Your task to perform on an android device: Go to CNN.com Image 0: 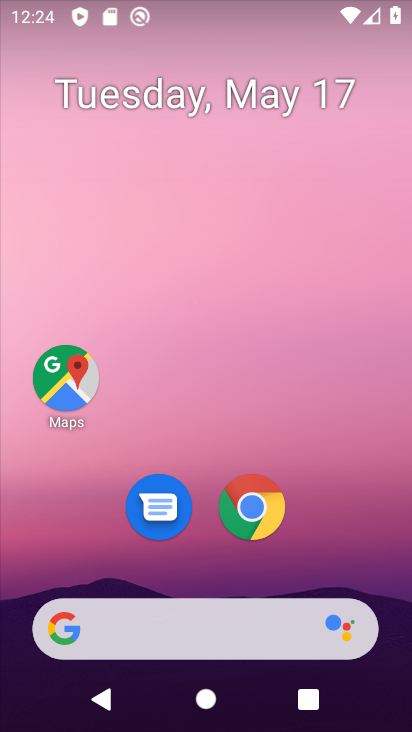
Step 0: click (248, 515)
Your task to perform on an android device: Go to CNN.com Image 1: 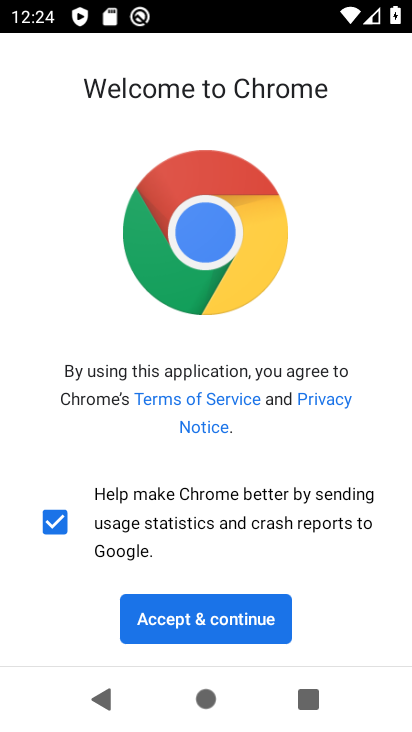
Step 1: click (150, 625)
Your task to perform on an android device: Go to CNN.com Image 2: 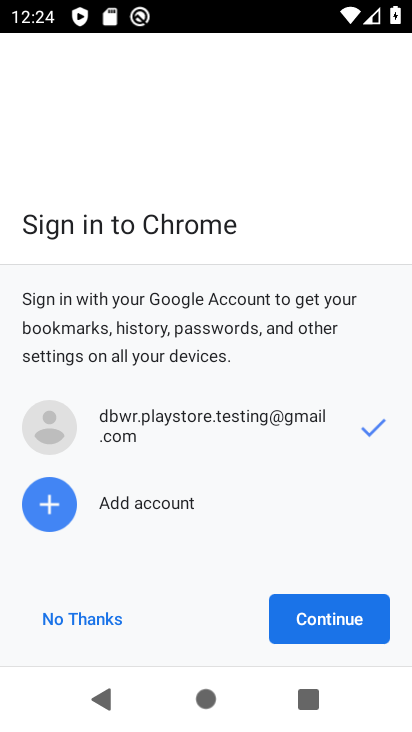
Step 2: click (286, 620)
Your task to perform on an android device: Go to CNN.com Image 3: 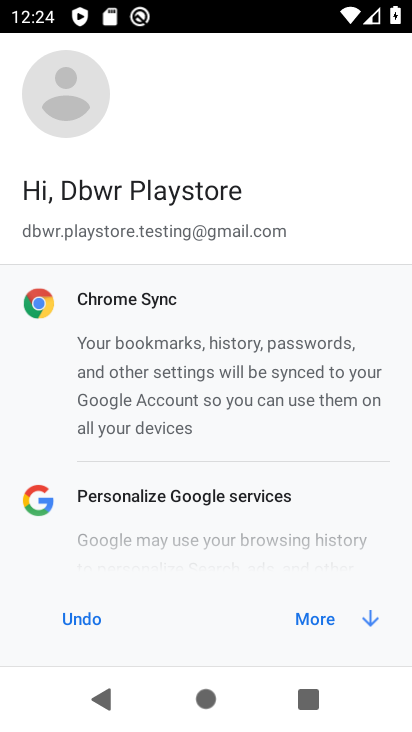
Step 3: click (315, 612)
Your task to perform on an android device: Go to CNN.com Image 4: 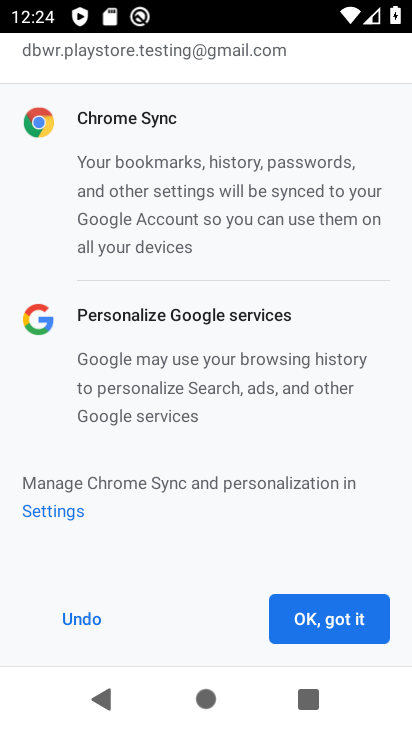
Step 4: click (315, 612)
Your task to perform on an android device: Go to CNN.com Image 5: 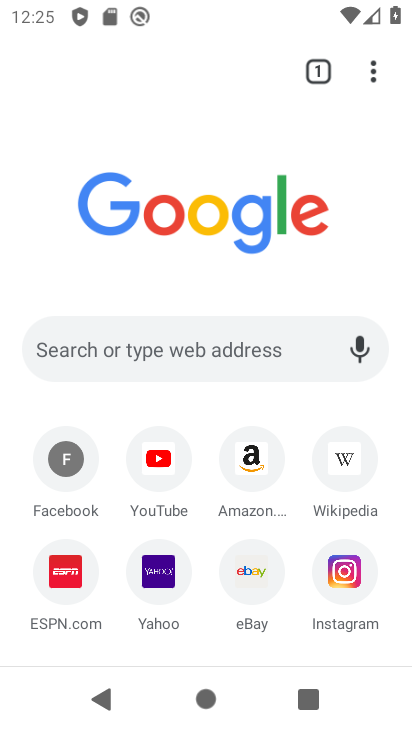
Step 5: click (241, 337)
Your task to perform on an android device: Go to CNN.com Image 6: 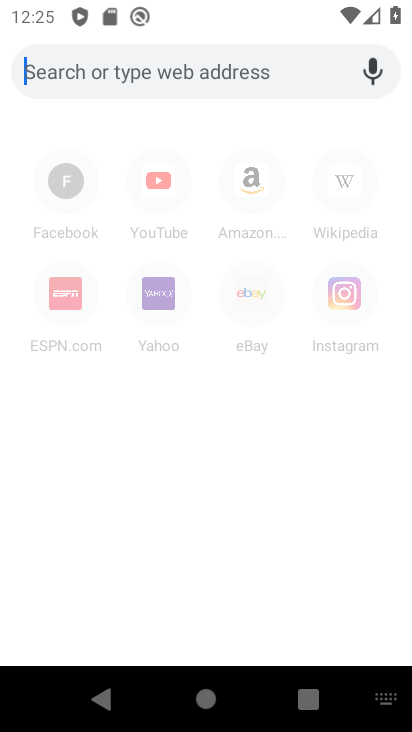
Step 6: type "cnn.com"
Your task to perform on an android device: Go to CNN.com Image 7: 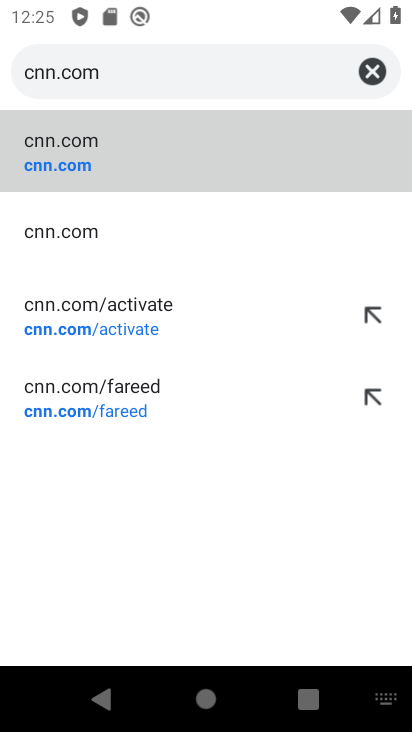
Step 7: click (75, 163)
Your task to perform on an android device: Go to CNN.com Image 8: 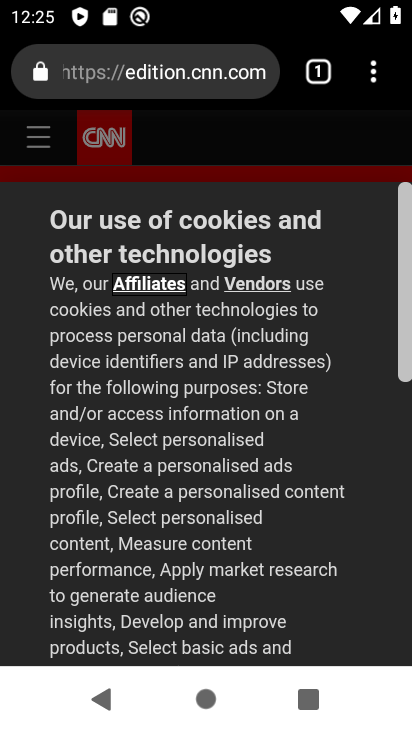
Step 8: task complete